Your task to perform on an android device: toggle priority inbox in the gmail app Image 0: 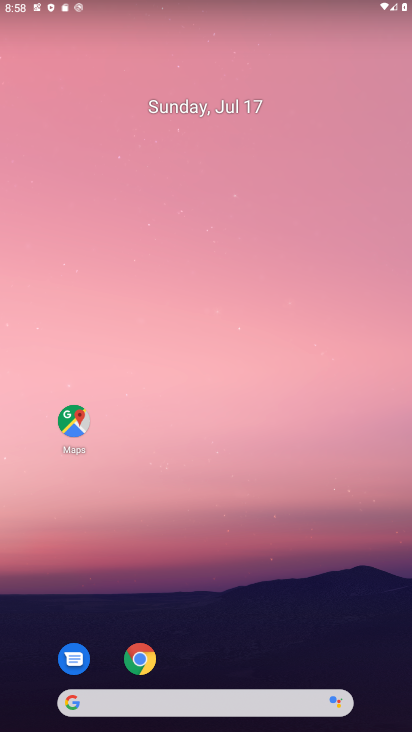
Step 0: drag from (209, 660) to (225, 176)
Your task to perform on an android device: toggle priority inbox in the gmail app Image 1: 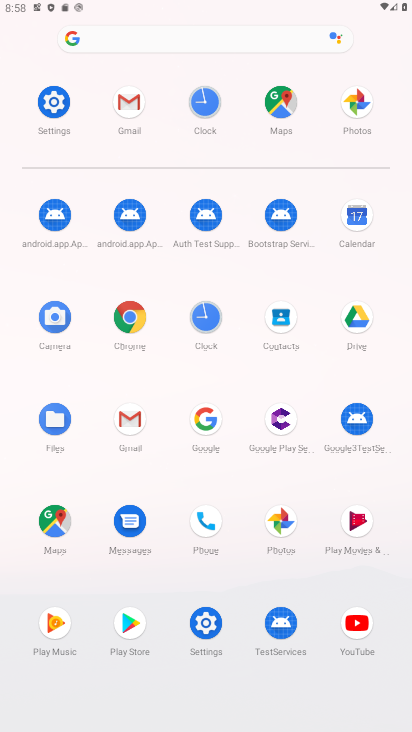
Step 1: click (127, 121)
Your task to perform on an android device: toggle priority inbox in the gmail app Image 2: 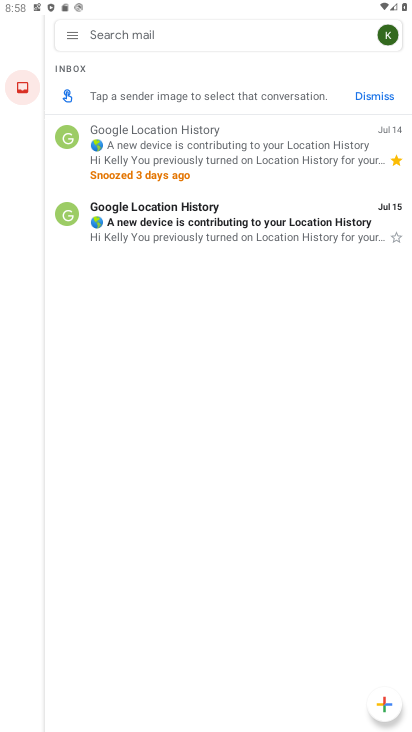
Step 2: click (74, 38)
Your task to perform on an android device: toggle priority inbox in the gmail app Image 3: 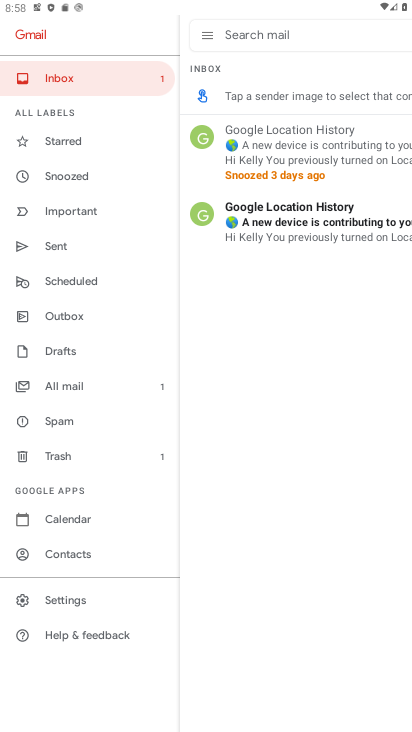
Step 3: click (94, 597)
Your task to perform on an android device: toggle priority inbox in the gmail app Image 4: 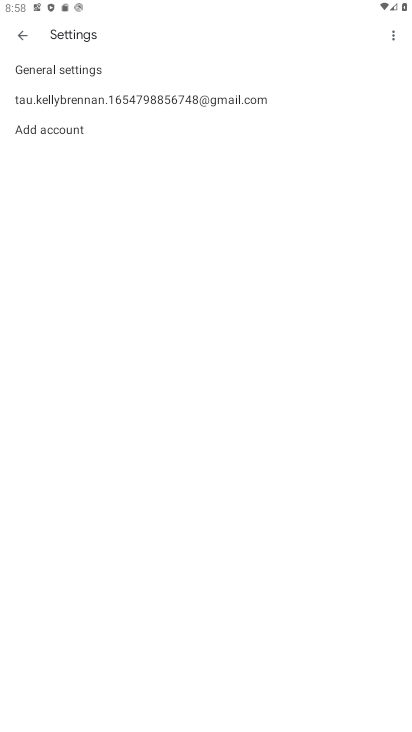
Step 4: click (121, 103)
Your task to perform on an android device: toggle priority inbox in the gmail app Image 5: 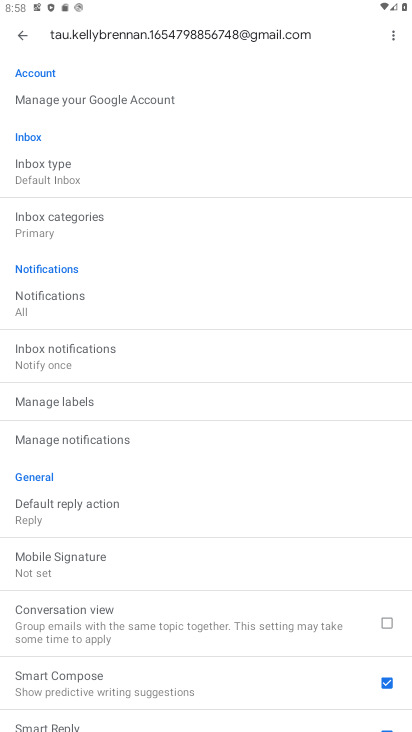
Step 5: click (101, 185)
Your task to perform on an android device: toggle priority inbox in the gmail app Image 6: 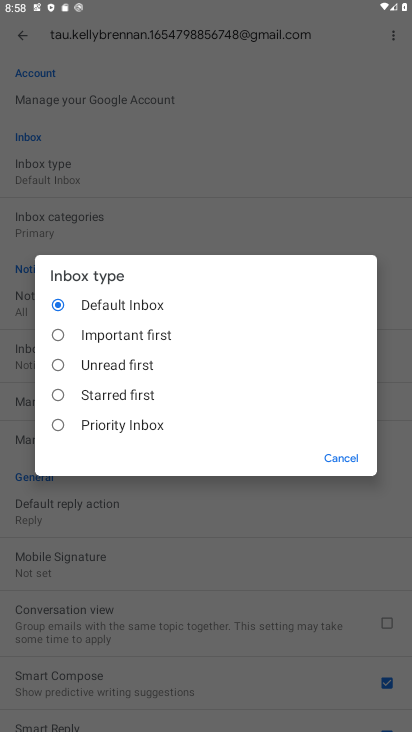
Step 6: click (121, 421)
Your task to perform on an android device: toggle priority inbox in the gmail app Image 7: 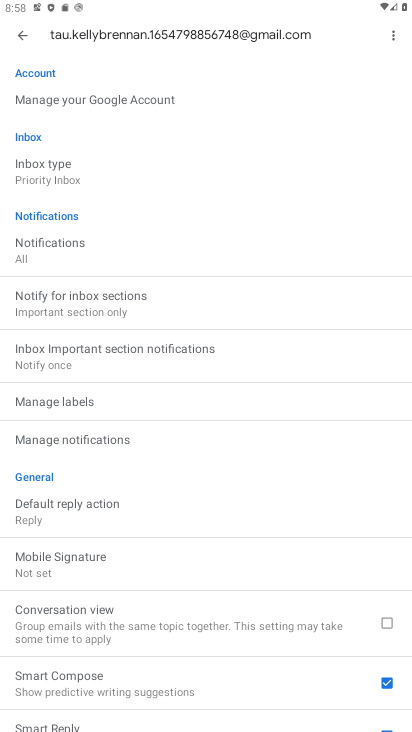
Step 7: task complete